Your task to perform on an android device: set default search engine in the chrome app Image 0: 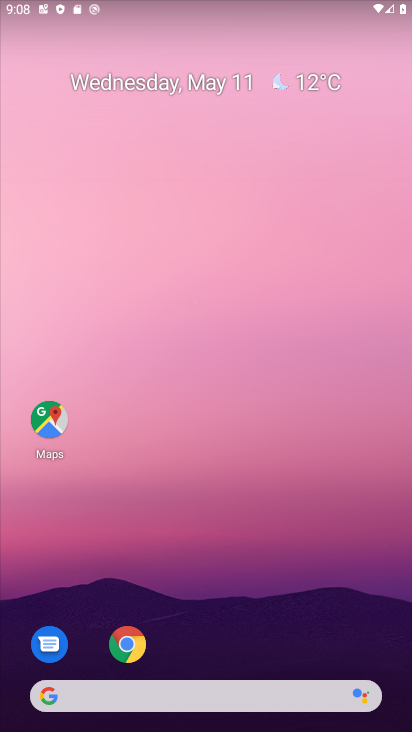
Step 0: click (132, 643)
Your task to perform on an android device: set default search engine in the chrome app Image 1: 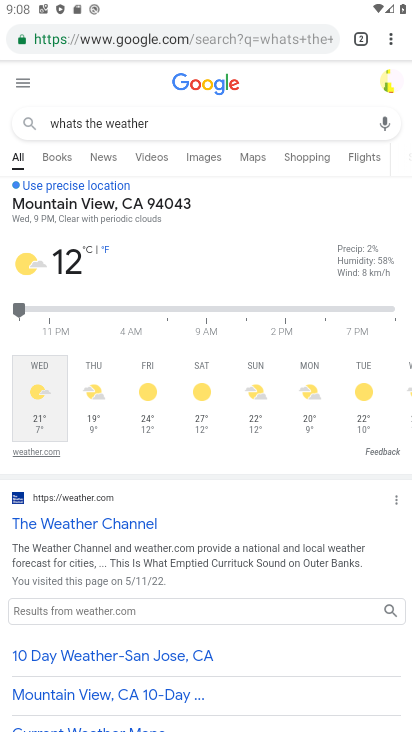
Step 1: click (394, 41)
Your task to perform on an android device: set default search engine in the chrome app Image 2: 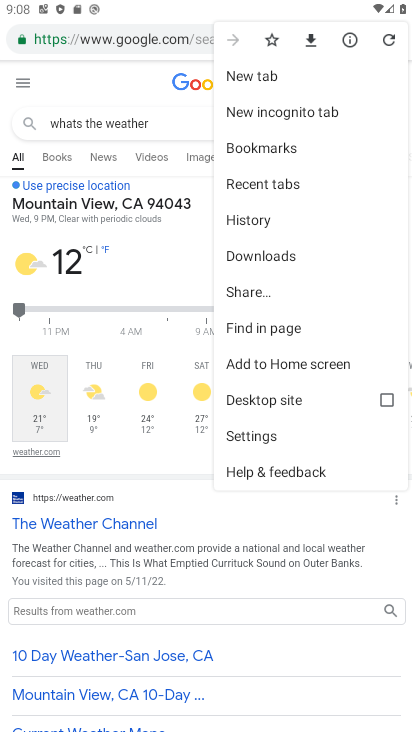
Step 2: click (252, 437)
Your task to perform on an android device: set default search engine in the chrome app Image 3: 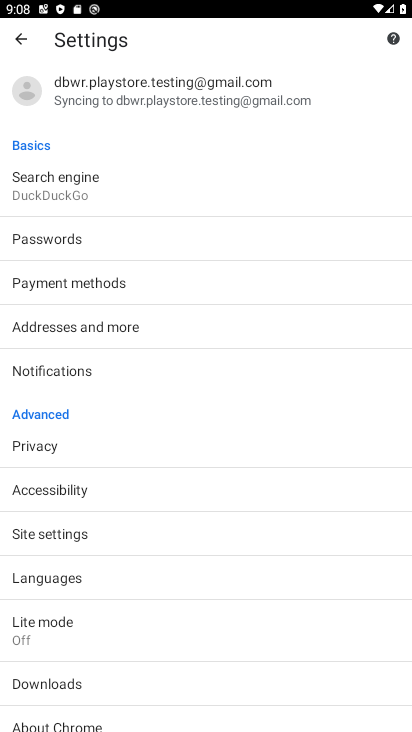
Step 3: click (66, 191)
Your task to perform on an android device: set default search engine in the chrome app Image 4: 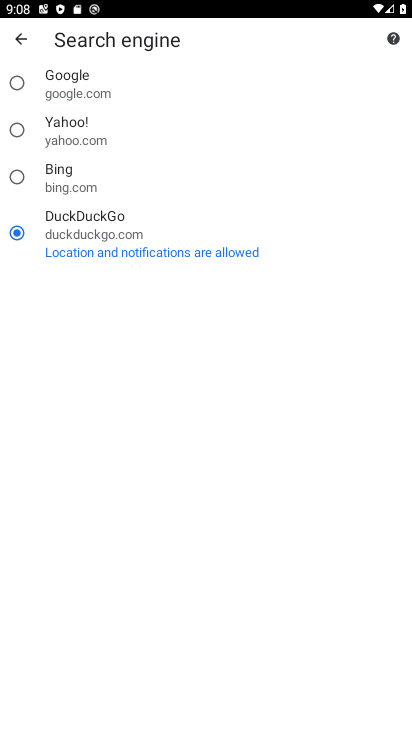
Step 4: click (78, 84)
Your task to perform on an android device: set default search engine in the chrome app Image 5: 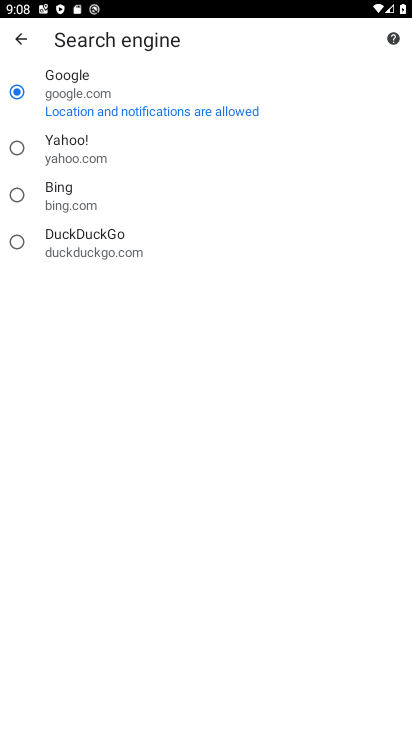
Step 5: task complete